Your task to perform on an android device: toggle pop-ups in chrome Image 0: 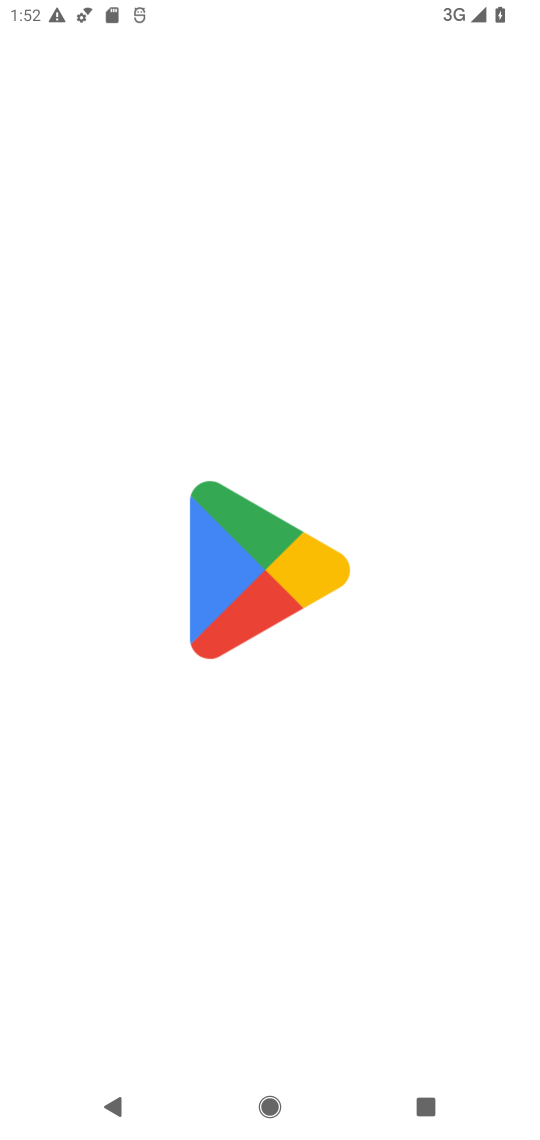
Step 0: press home button
Your task to perform on an android device: toggle pop-ups in chrome Image 1: 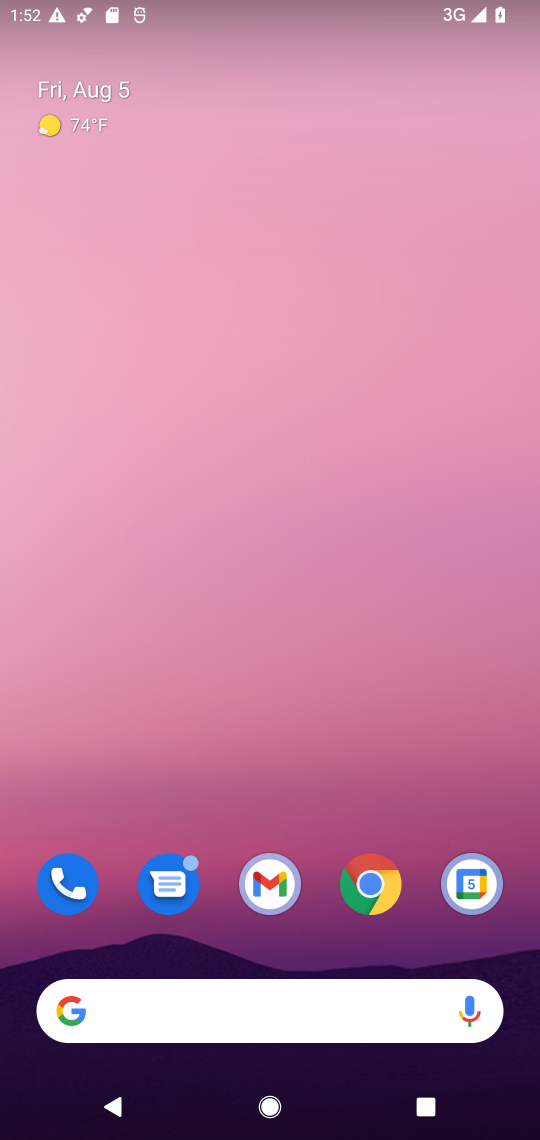
Step 1: drag from (539, 970) to (270, 76)
Your task to perform on an android device: toggle pop-ups in chrome Image 2: 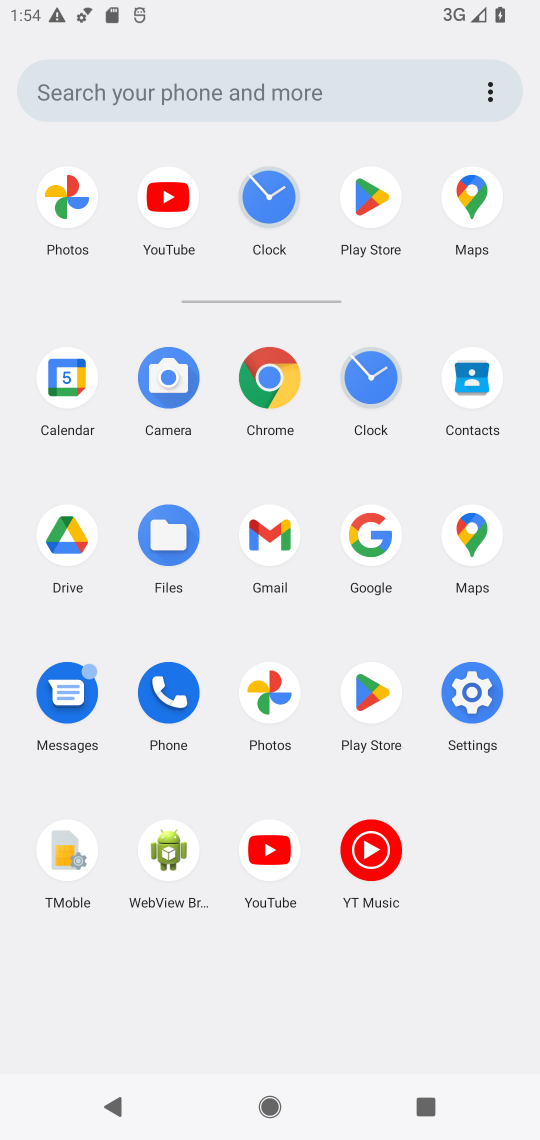
Step 2: click (276, 385)
Your task to perform on an android device: toggle pop-ups in chrome Image 3: 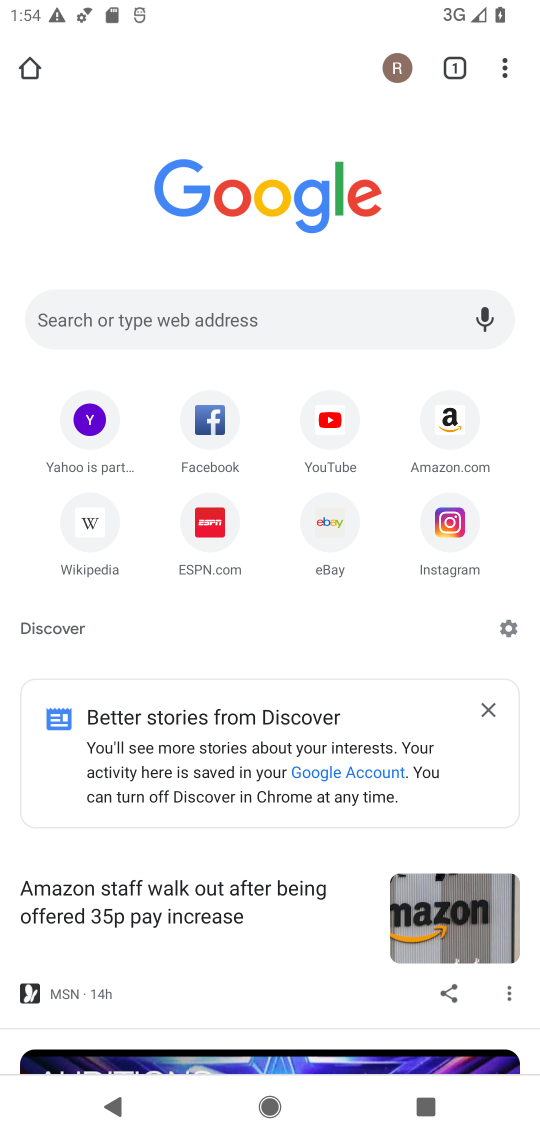
Step 3: click (501, 64)
Your task to perform on an android device: toggle pop-ups in chrome Image 4: 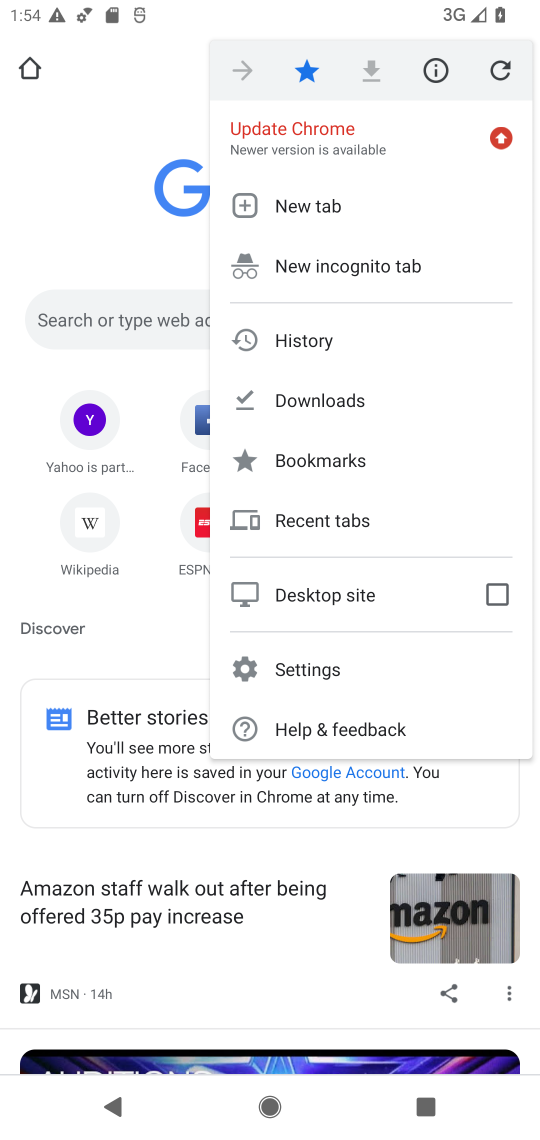
Step 4: click (311, 674)
Your task to perform on an android device: toggle pop-ups in chrome Image 5: 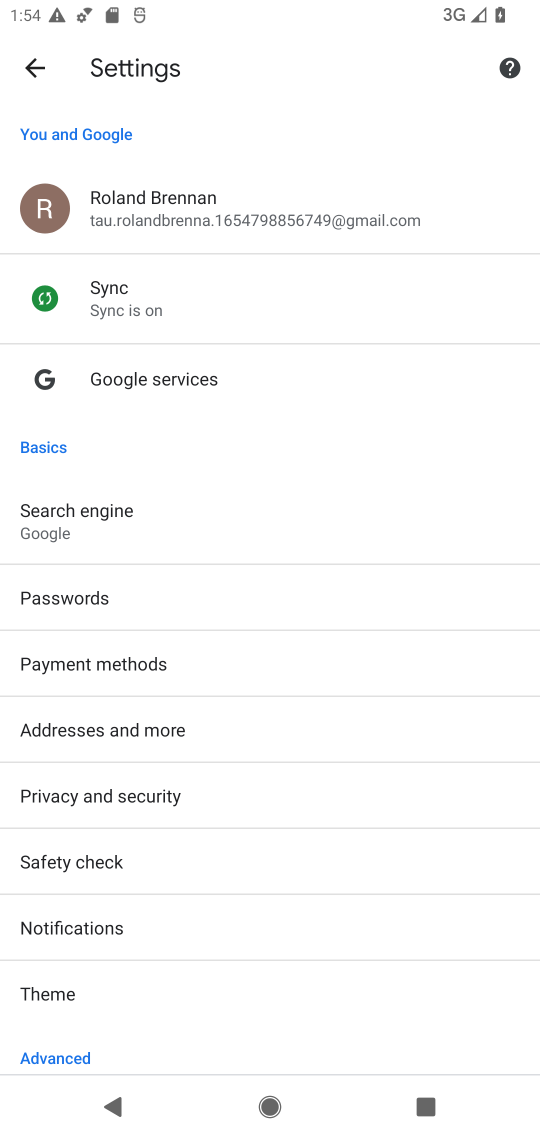
Step 5: drag from (193, 1024) to (256, 466)
Your task to perform on an android device: toggle pop-ups in chrome Image 6: 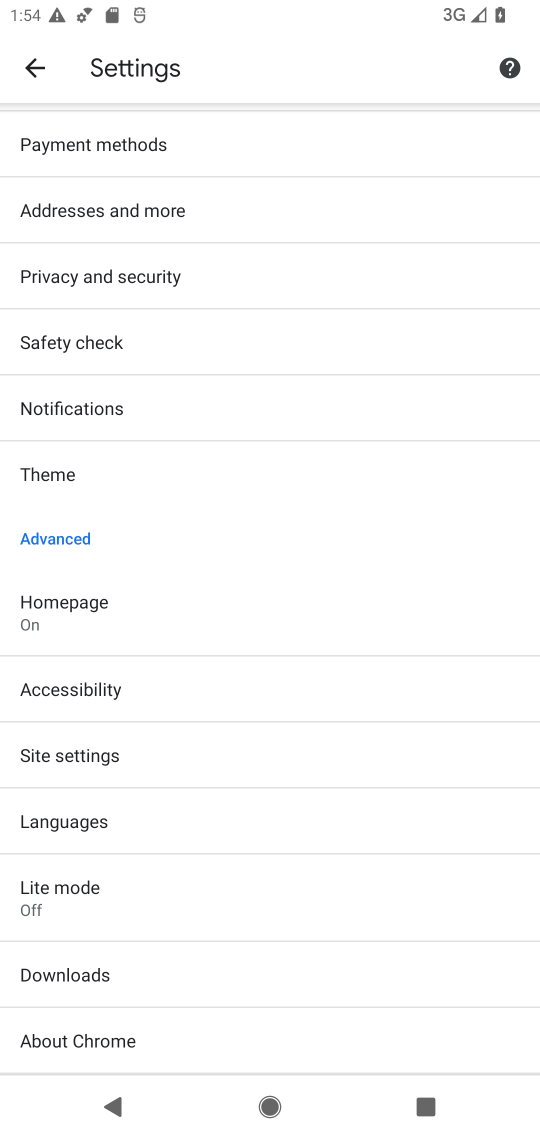
Step 6: click (115, 753)
Your task to perform on an android device: toggle pop-ups in chrome Image 7: 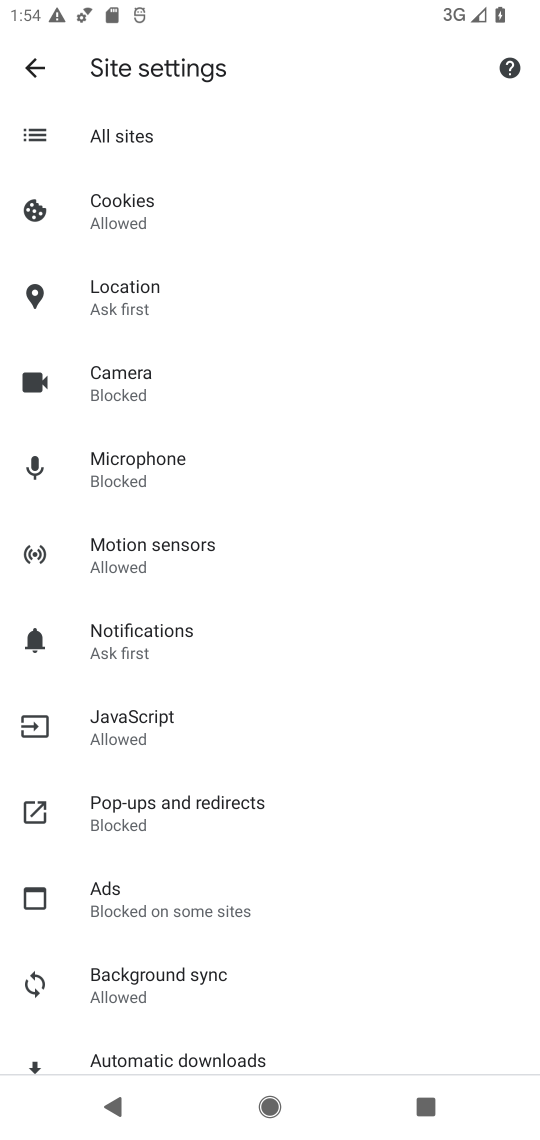
Step 7: click (204, 810)
Your task to perform on an android device: toggle pop-ups in chrome Image 8: 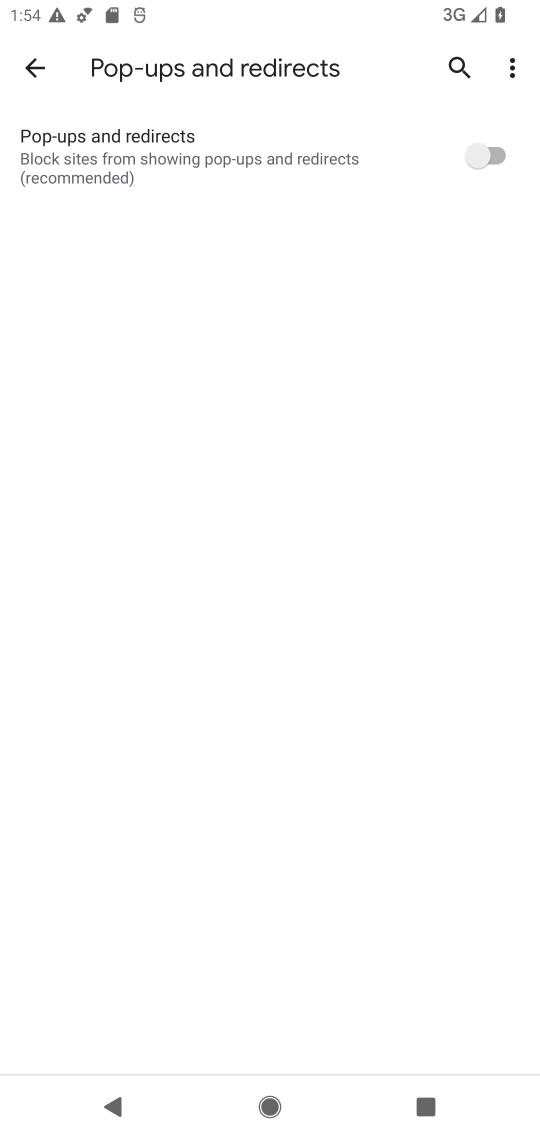
Step 8: click (460, 148)
Your task to perform on an android device: toggle pop-ups in chrome Image 9: 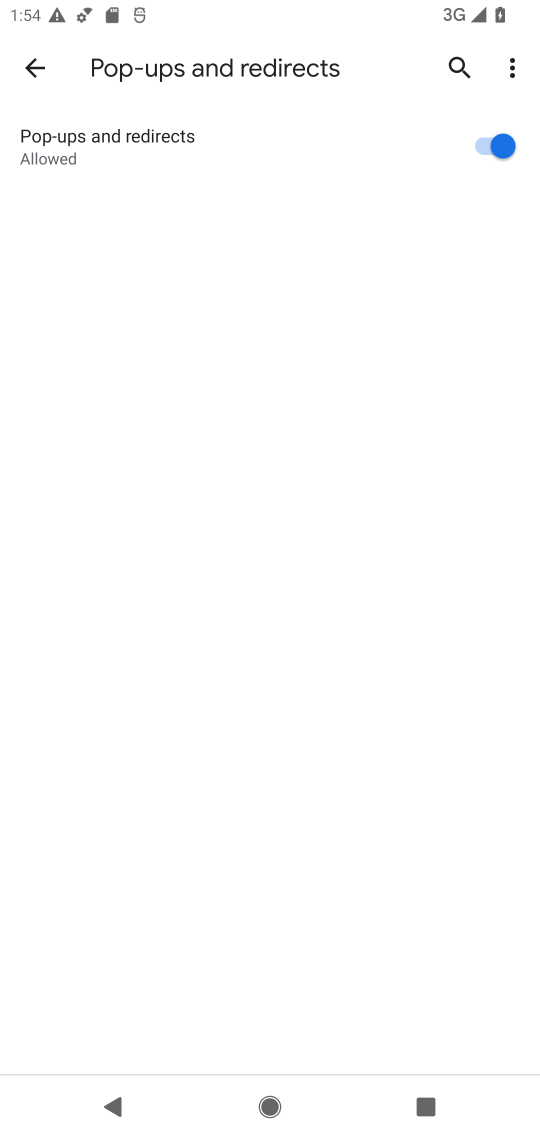
Step 9: task complete